Your task to perform on an android device: Search for seafood restaurants on Google Maps Image 0: 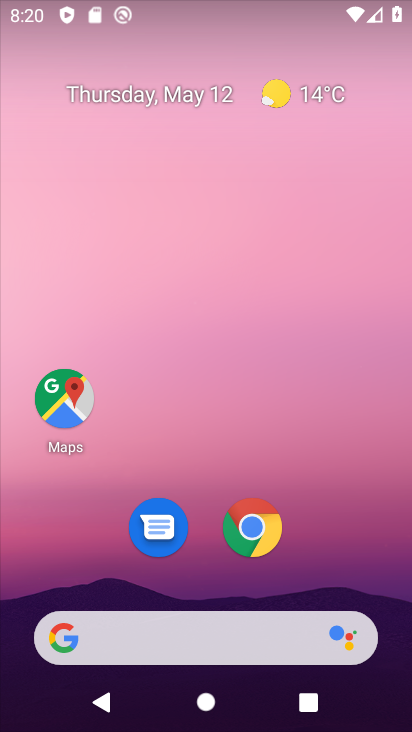
Step 0: click (67, 412)
Your task to perform on an android device: Search for seafood restaurants on Google Maps Image 1: 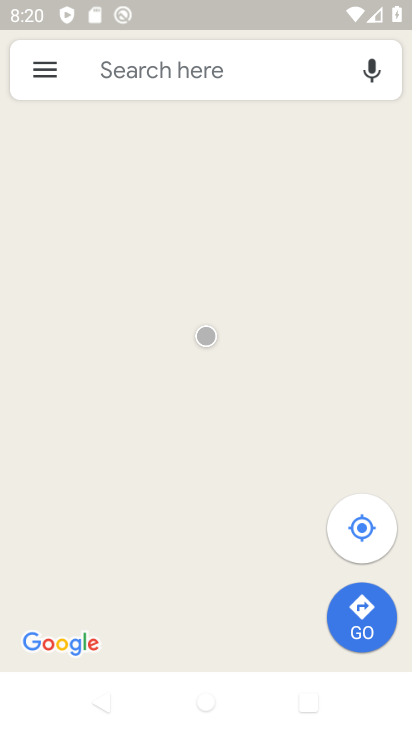
Step 1: click (202, 70)
Your task to perform on an android device: Search for seafood restaurants on Google Maps Image 2: 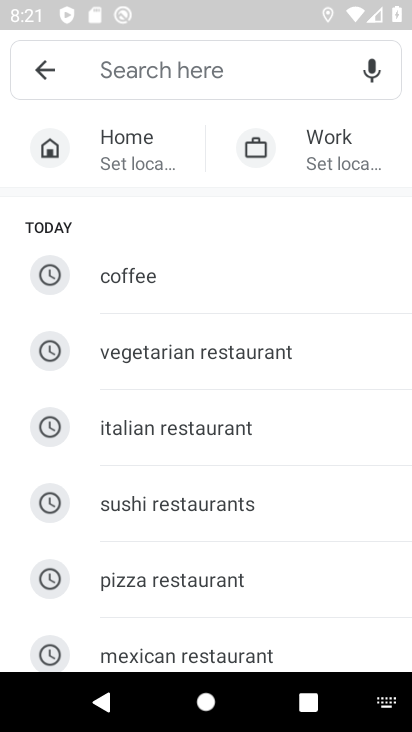
Step 2: drag from (192, 508) to (189, 270)
Your task to perform on an android device: Search for seafood restaurants on Google Maps Image 3: 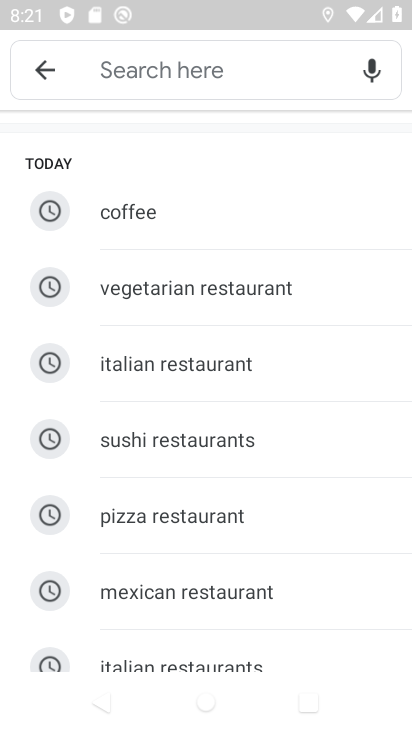
Step 3: drag from (239, 649) to (244, 386)
Your task to perform on an android device: Search for seafood restaurants on Google Maps Image 4: 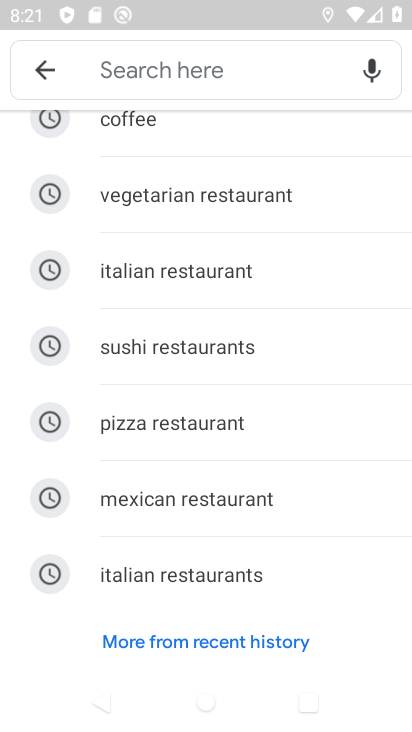
Step 4: click (207, 75)
Your task to perform on an android device: Search for seafood restaurants on Google Maps Image 5: 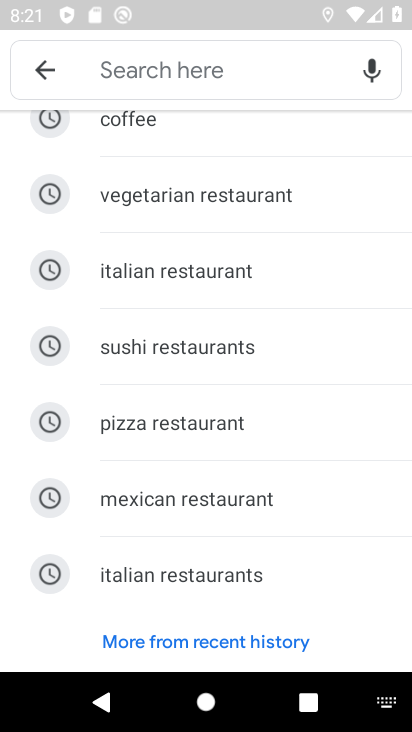
Step 5: type "seafood"
Your task to perform on an android device: Search for seafood restaurants on Google Maps Image 6: 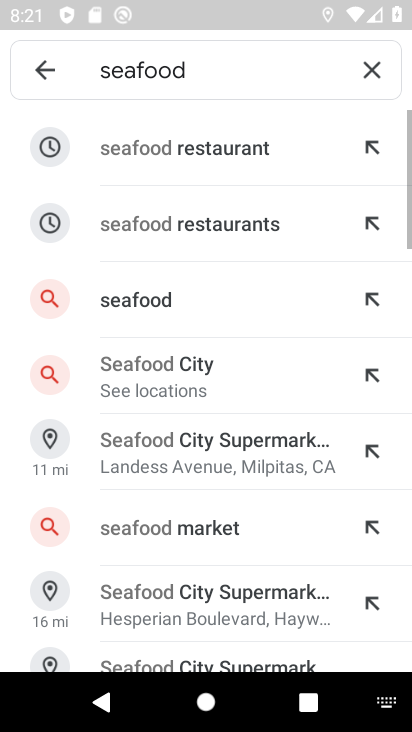
Step 6: click (225, 149)
Your task to perform on an android device: Search for seafood restaurants on Google Maps Image 7: 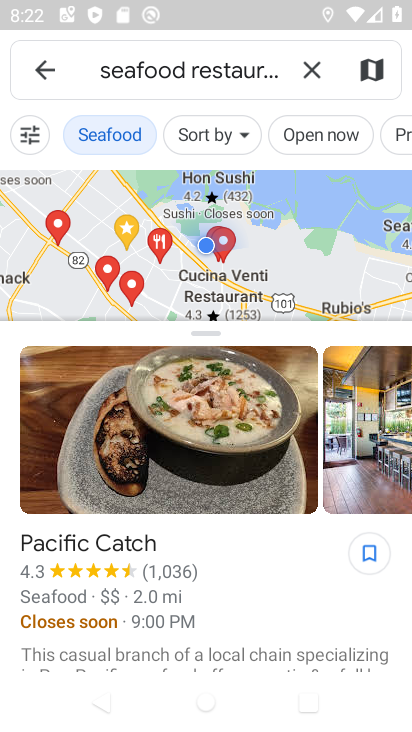
Step 7: task complete